Your task to perform on an android device: Open the Play Movies app and select the watchlist tab. Image 0: 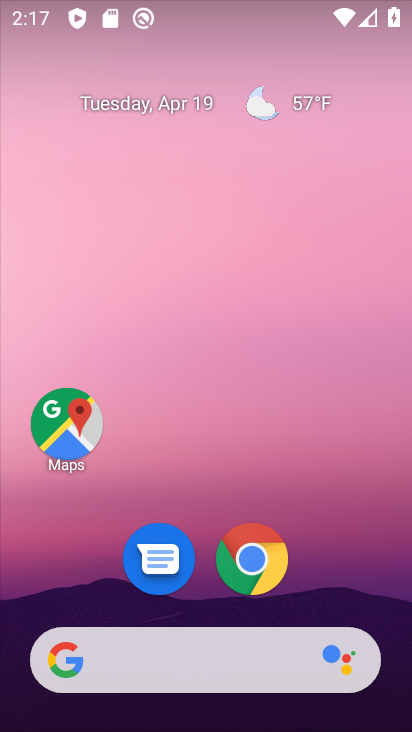
Step 0: drag from (373, 561) to (370, 86)
Your task to perform on an android device: Open the Play Movies app and select the watchlist tab. Image 1: 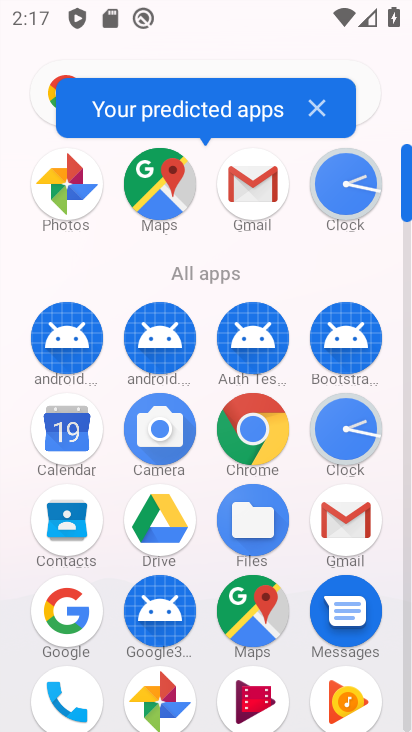
Step 1: drag from (386, 550) to (390, 185)
Your task to perform on an android device: Open the Play Movies app and select the watchlist tab. Image 2: 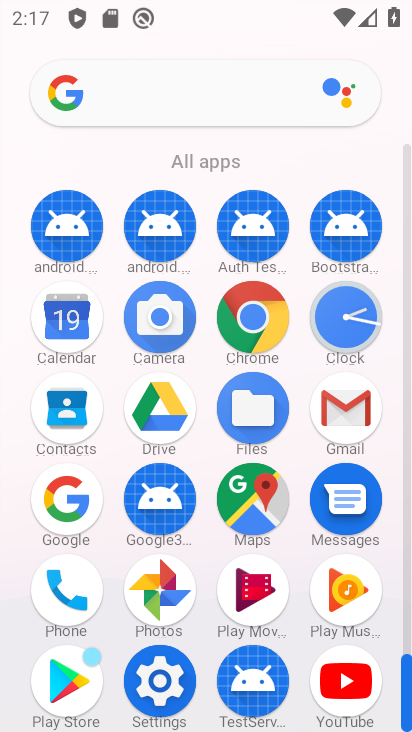
Step 2: click (249, 604)
Your task to perform on an android device: Open the Play Movies app and select the watchlist tab. Image 3: 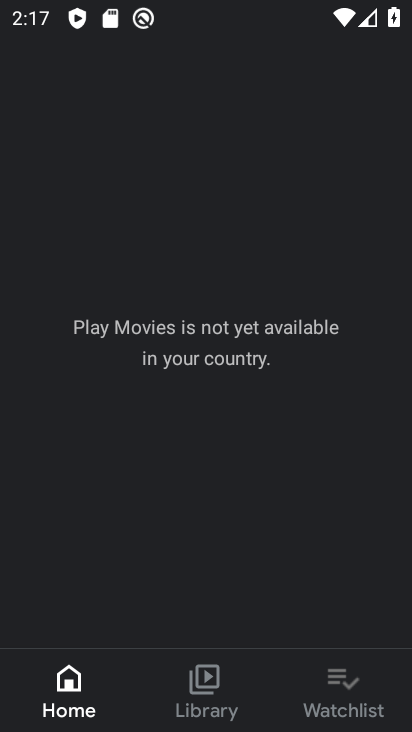
Step 3: click (349, 699)
Your task to perform on an android device: Open the Play Movies app and select the watchlist tab. Image 4: 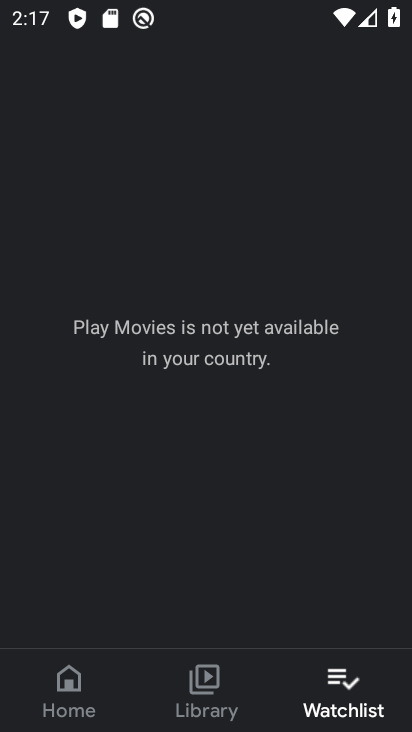
Step 4: task complete